Your task to perform on an android device: turn off picture-in-picture Image 0: 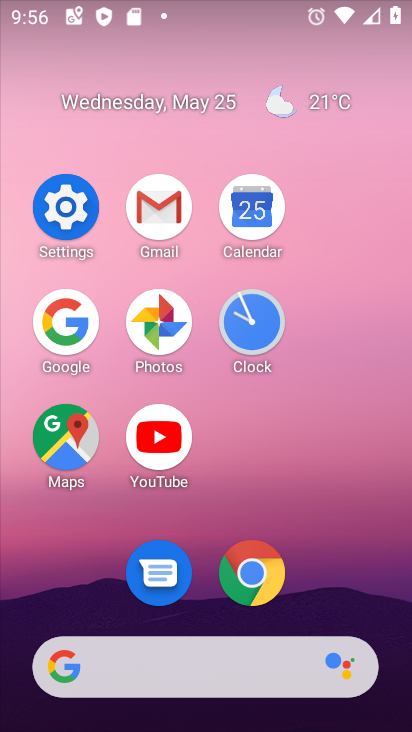
Step 0: click (261, 581)
Your task to perform on an android device: turn off picture-in-picture Image 1: 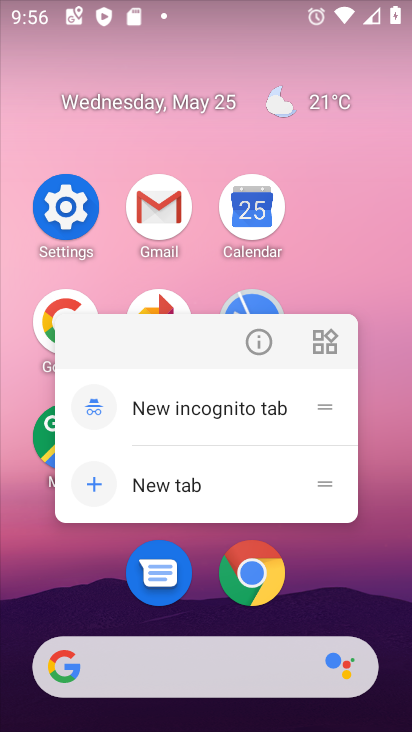
Step 1: click (265, 356)
Your task to perform on an android device: turn off picture-in-picture Image 2: 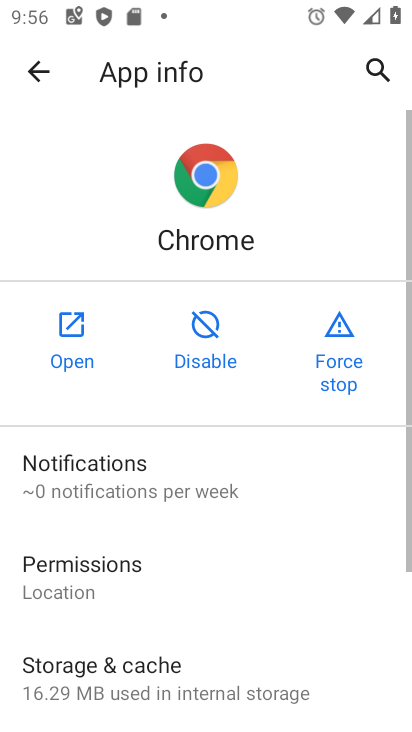
Step 2: drag from (203, 523) to (160, 261)
Your task to perform on an android device: turn off picture-in-picture Image 3: 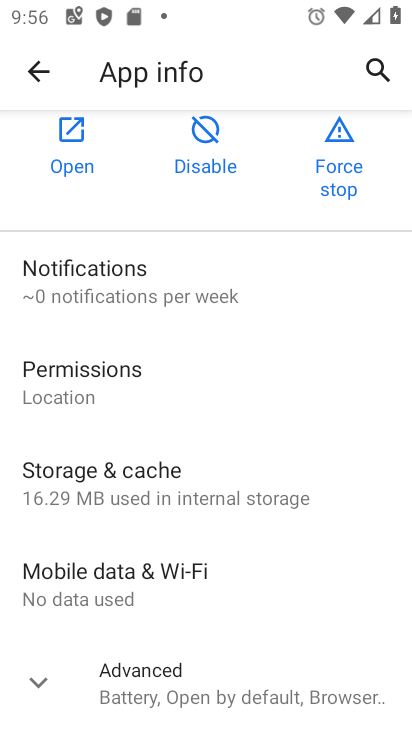
Step 3: click (194, 681)
Your task to perform on an android device: turn off picture-in-picture Image 4: 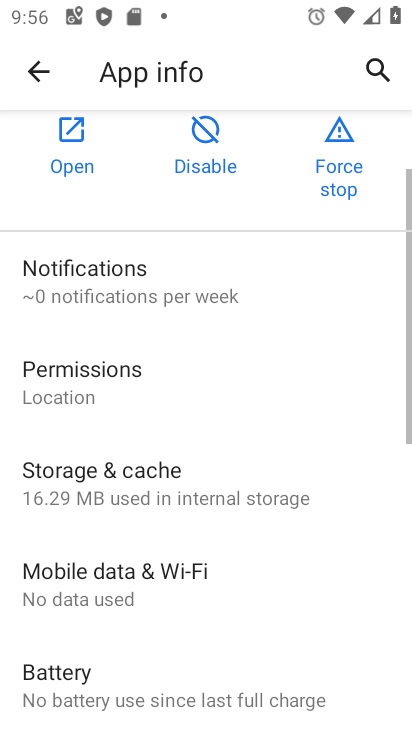
Step 4: drag from (194, 681) to (151, 257)
Your task to perform on an android device: turn off picture-in-picture Image 5: 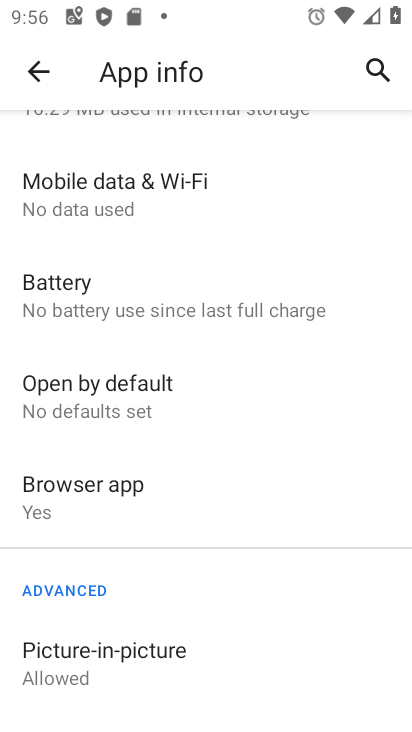
Step 5: click (165, 639)
Your task to perform on an android device: turn off picture-in-picture Image 6: 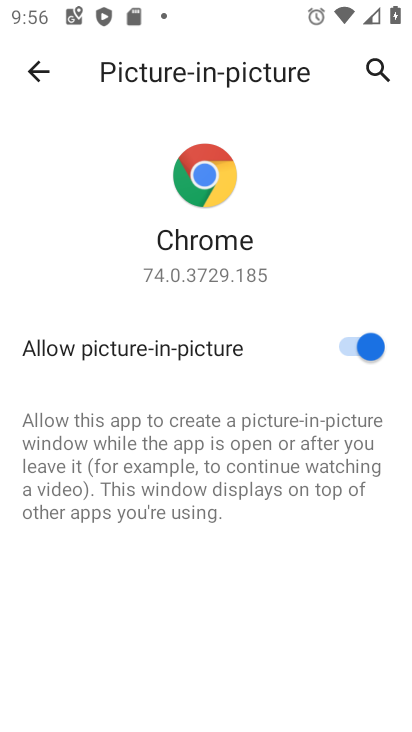
Step 6: click (357, 356)
Your task to perform on an android device: turn off picture-in-picture Image 7: 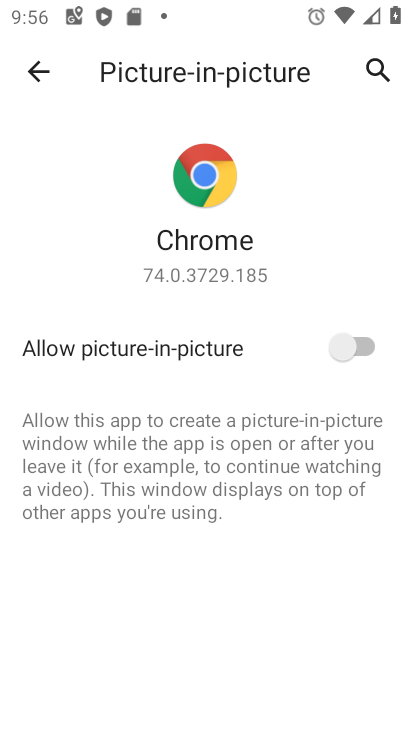
Step 7: task complete